Your task to perform on an android device: manage bookmarks in the chrome app Image 0: 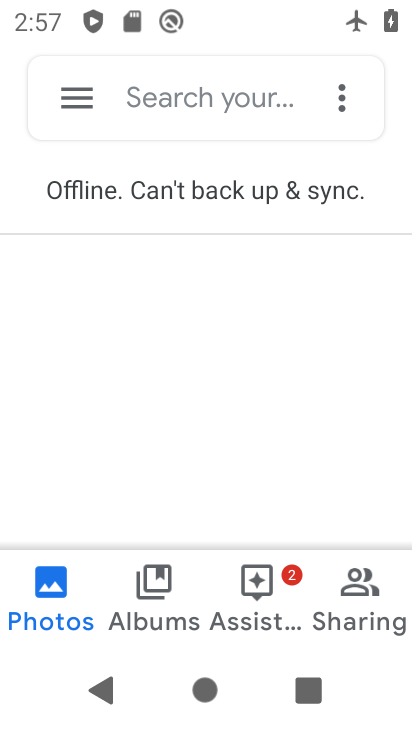
Step 0: press home button
Your task to perform on an android device: manage bookmarks in the chrome app Image 1: 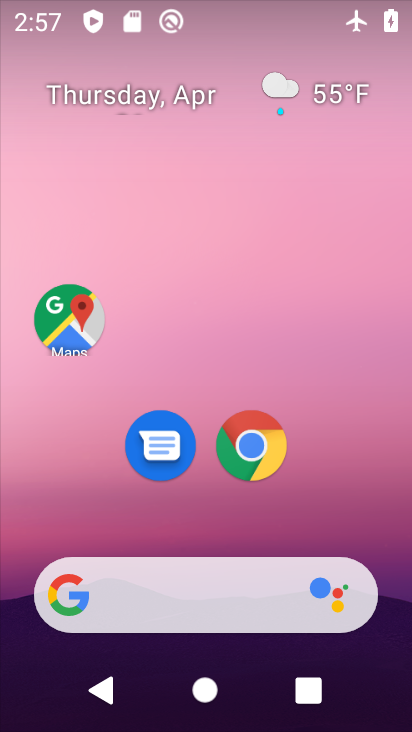
Step 1: click (253, 443)
Your task to perform on an android device: manage bookmarks in the chrome app Image 2: 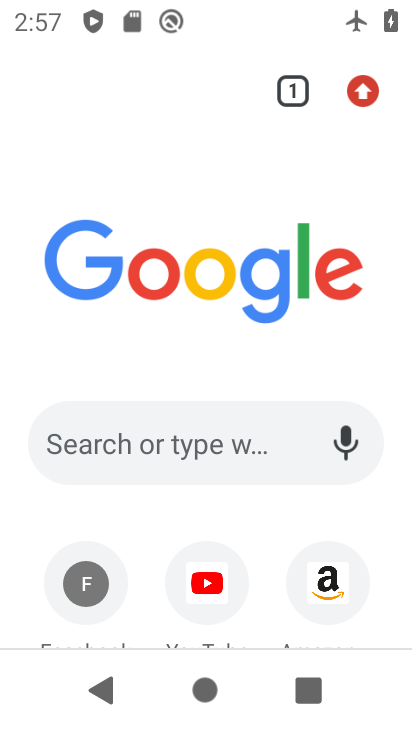
Step 2: click (363, 92)
Your task to perform on an android device: manage bookmarks in the chrome app Image 3: 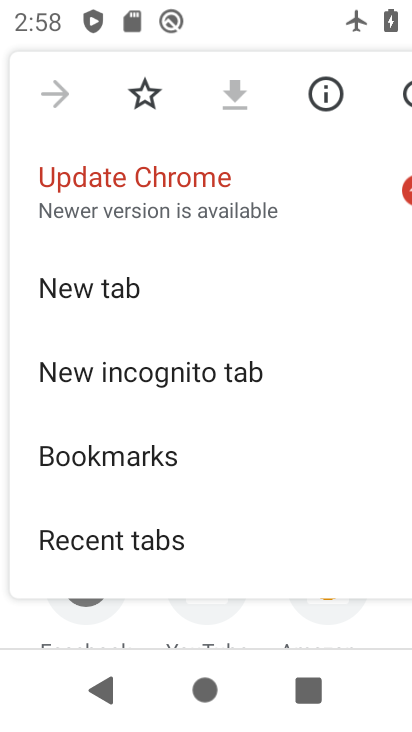
Step 3: click (152, 458)
Your task to perform on an android device: manage bookmarks in the chrome app Image 4: 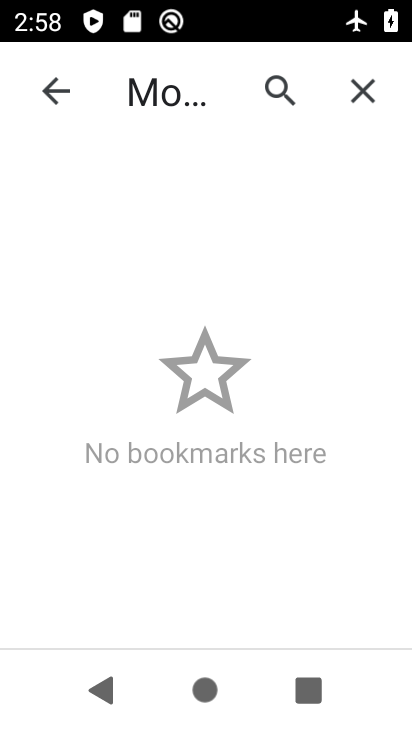
Step 4: task complete